Your task to perform on an android device: set an alarm Image 0: 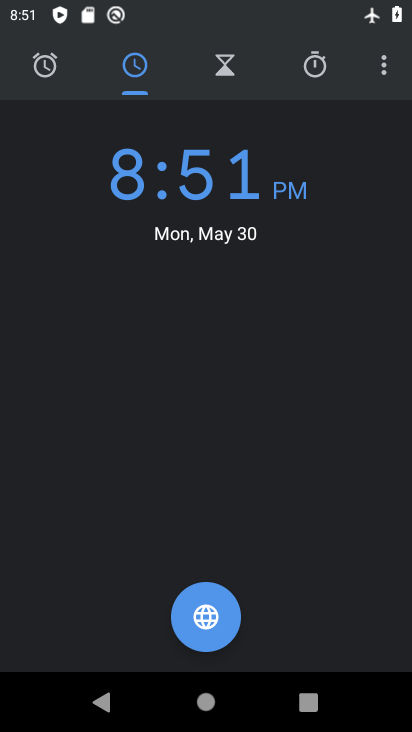
Step 0: press home button
Your task to perform on an android device: set an alarm Image 1: 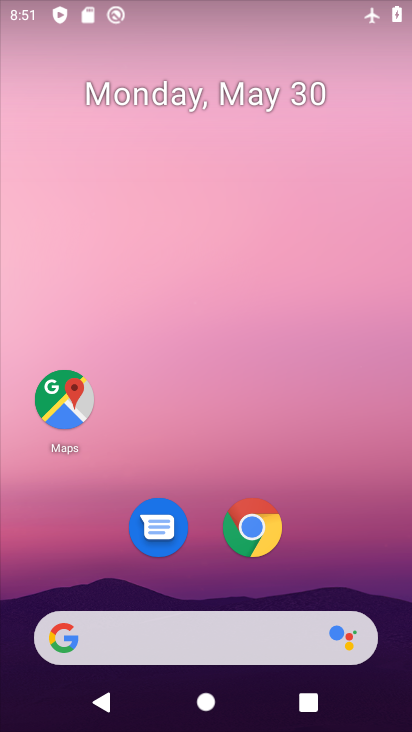
Step 1: drag from (309, 602) to (407, 0)
Your task to perform on an android device: set an alarm Image 2: 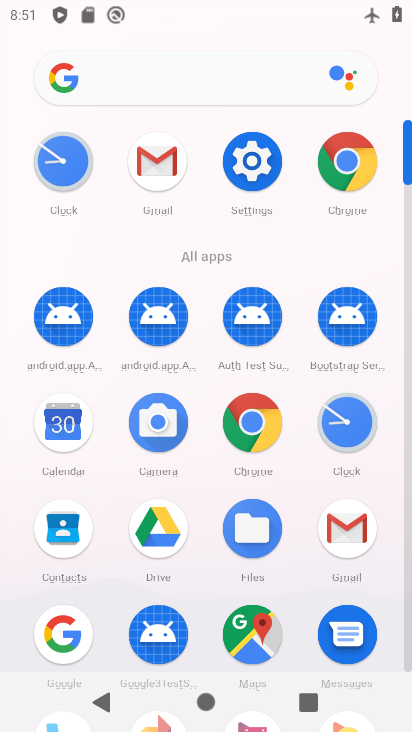
Step 2: click (348, 415)
Your task to perform on an android device: set an alarm Image 3: 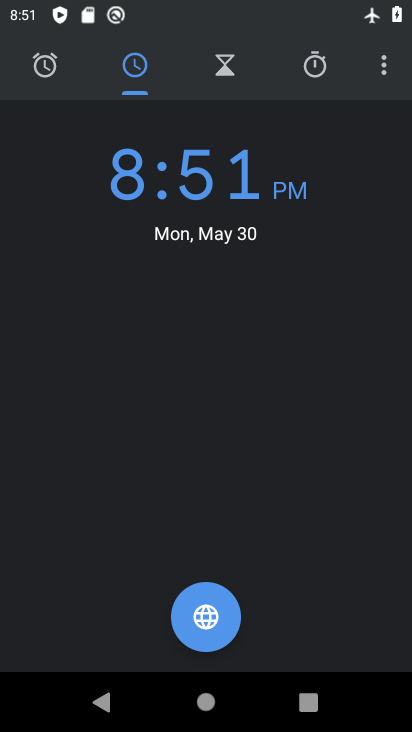
Step 3: click (43, 63)
Your task to perform on an android device: set an alarm Image 4: 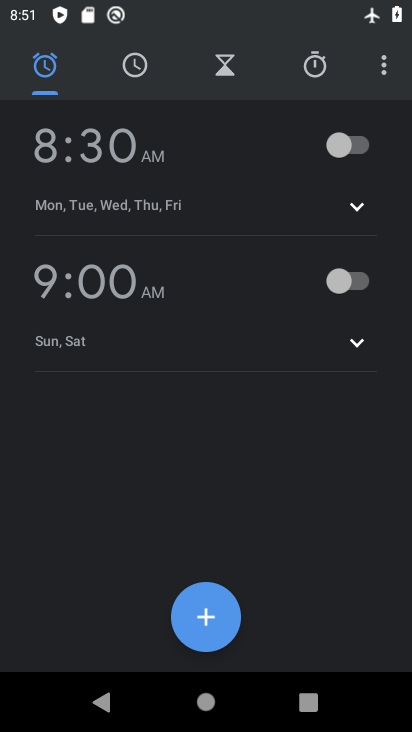
Step 4: click (354, 141)
Your task to perform on an android device: set an alarm Image 5: 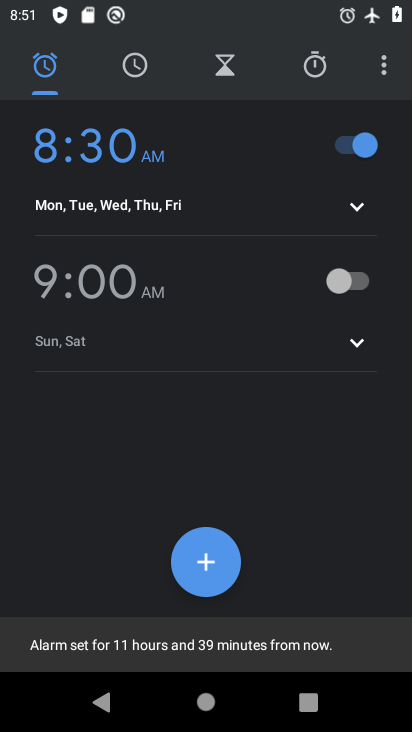
Step 5: task complete